Your task to perform on an android device: See recent photos Image 0: 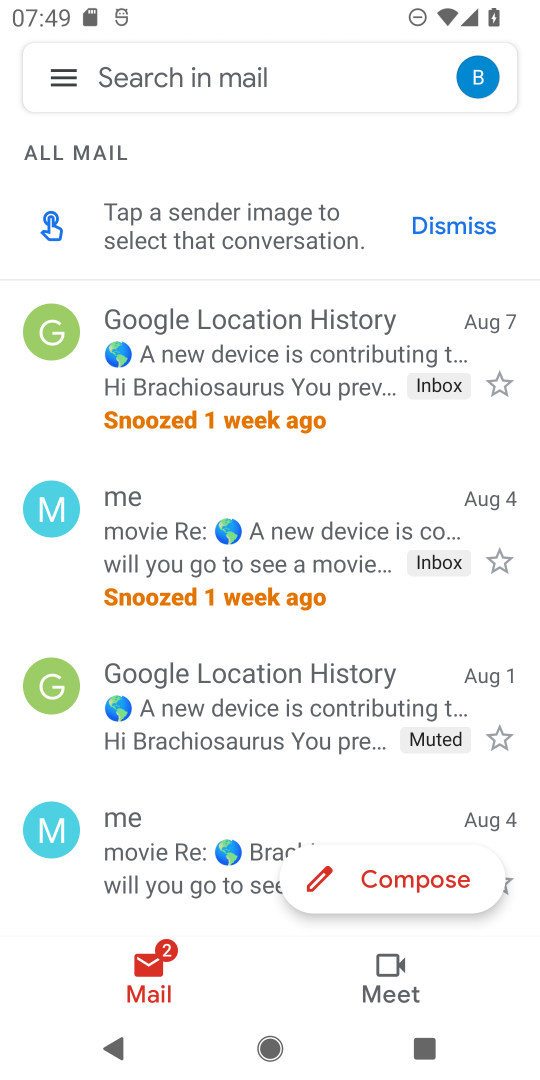
Step 0: press home button
Your task to perform on an android device: See recent photos Image 1: 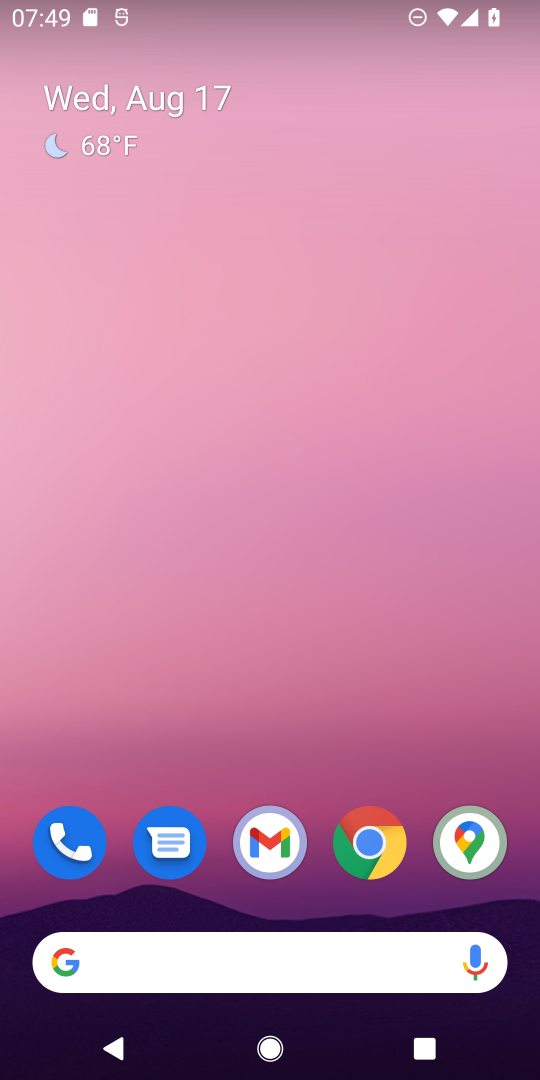
Step 1: drag from (336, 697) to (347, 0)
Your task to perform on an android device: See recent photos Image 2: 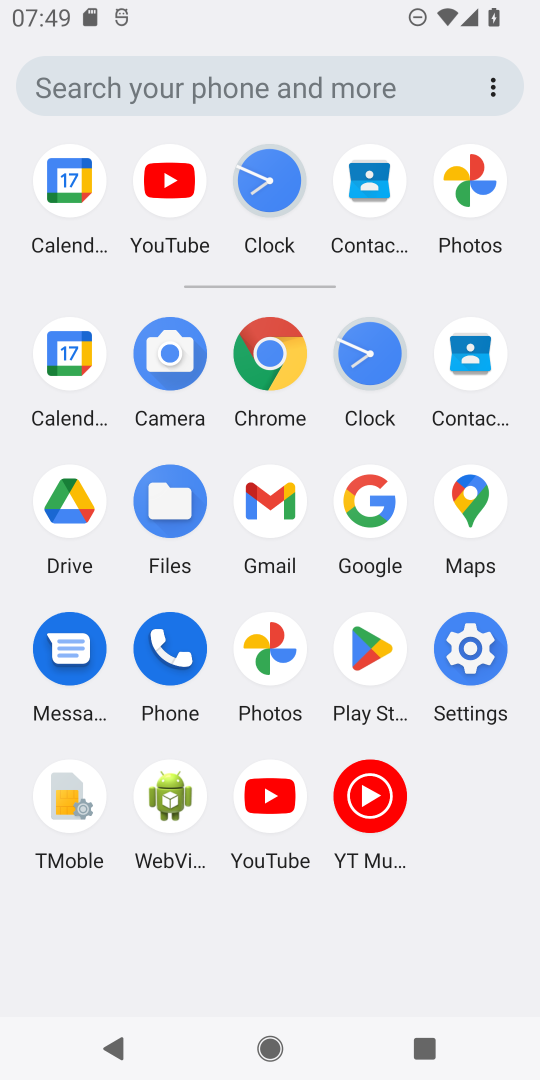
Step 2: click (279, 644)
Your task to perform on an android device: See recent photos Image 3: 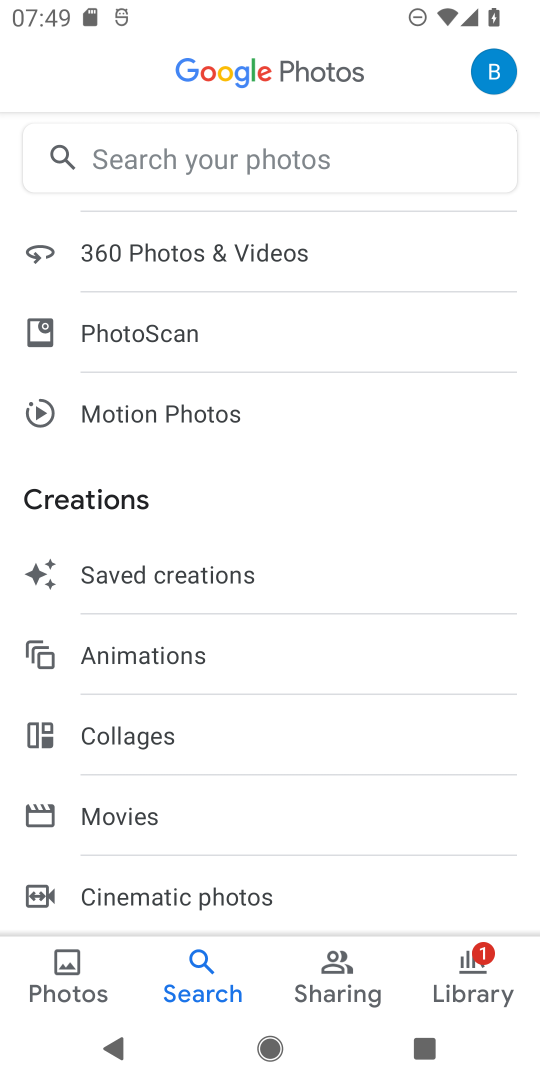
Step 3: click (68, 973)
Your task to perform on an android device: See recent photos Image 4: 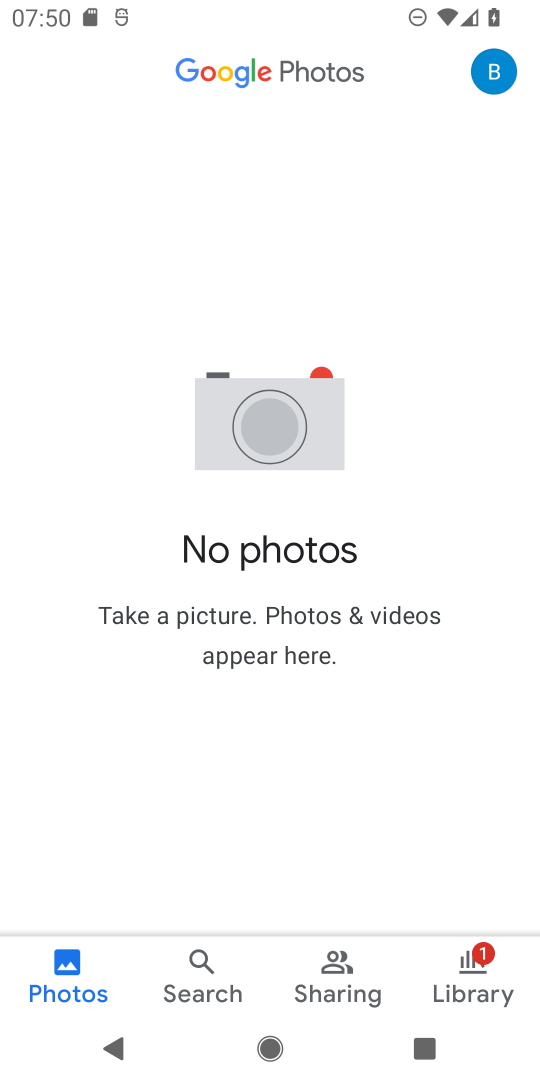
Step 4: task complete